Your task to perform on an android device: Go to sound settings Image 0: 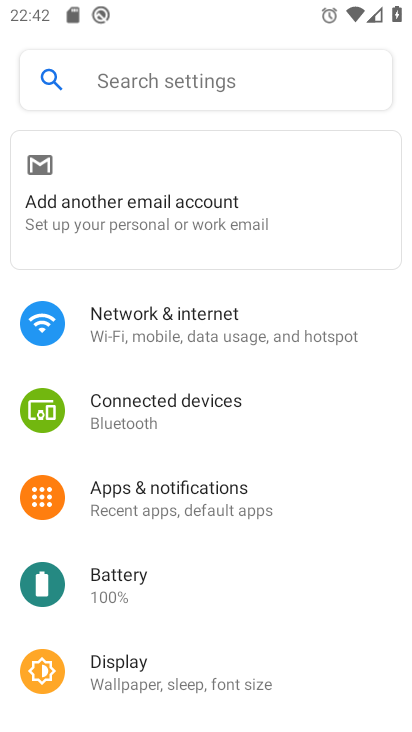
Step 0: drag from (269, 554) to (270, 247)
Your task to perform on an android device: Go to sound settings Image 1: 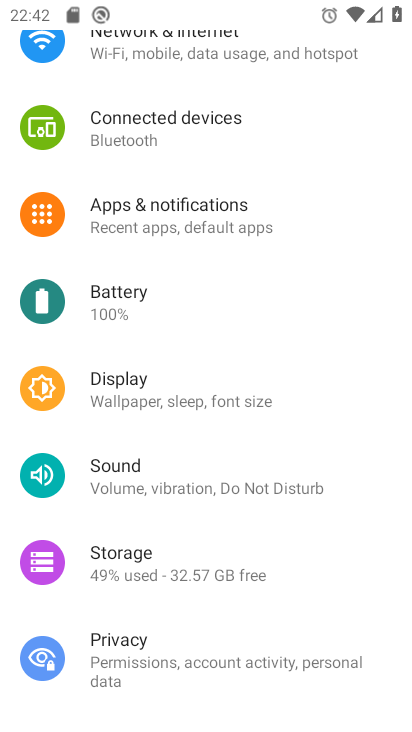
Step 1: click (217, 474)
Your task to perform on an android device: Go to sound settings Image 2: 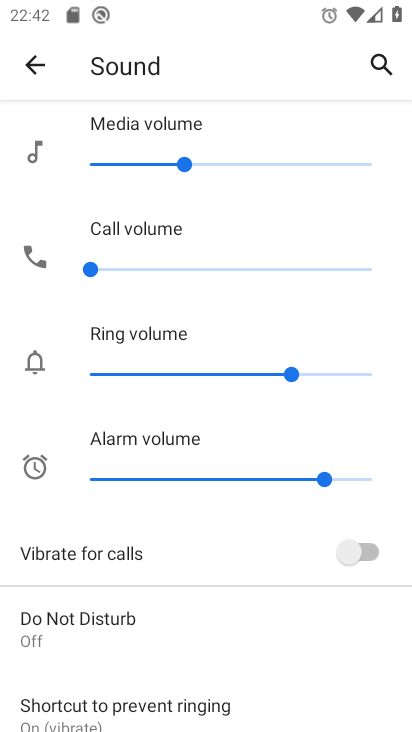
Step 2: task complete